Your task to perform on an android device: Open the Play Movies app and select the watchlist tab. Image 0: 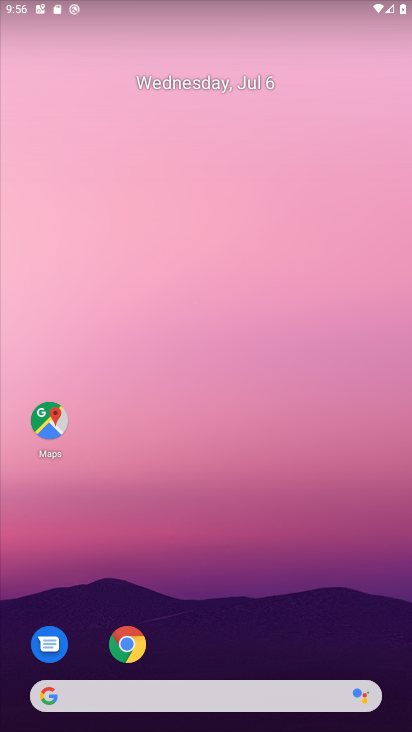
Step 0: drag from (241, 684) to (105, 134)
Your task to perform on an android device: Open the Play Movies app and select the watchlist tab. Image 1: 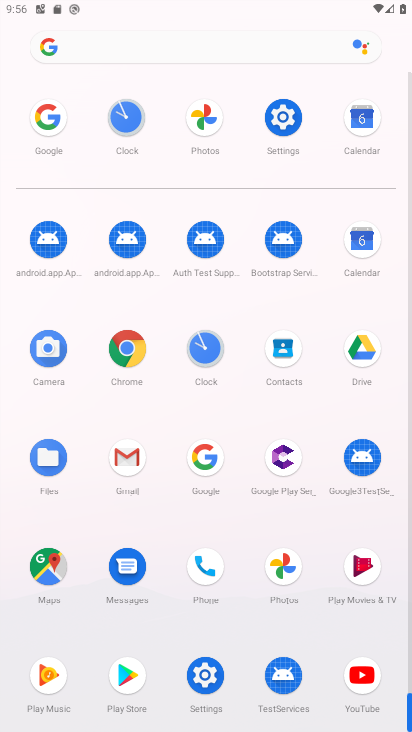
Step 1: click (349, 584)
Your task to perform on an android device: Open the Play Movies app and select the watchlist tab. Image 2: 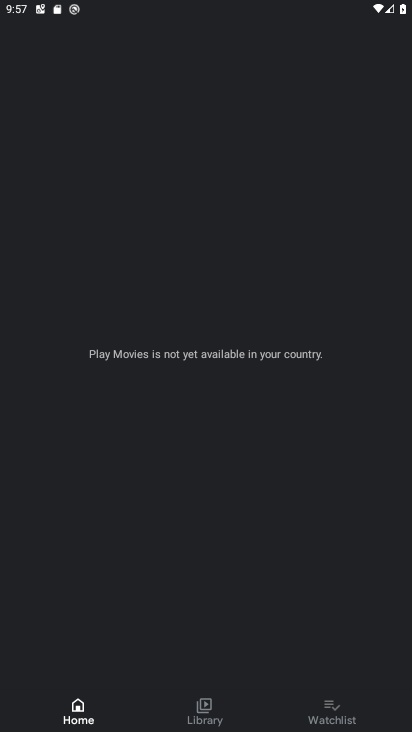
Step 2: click (343, 701)
Your task to perform on an android device: Open the Play Movies app and select the watchlist tab. Image 3: 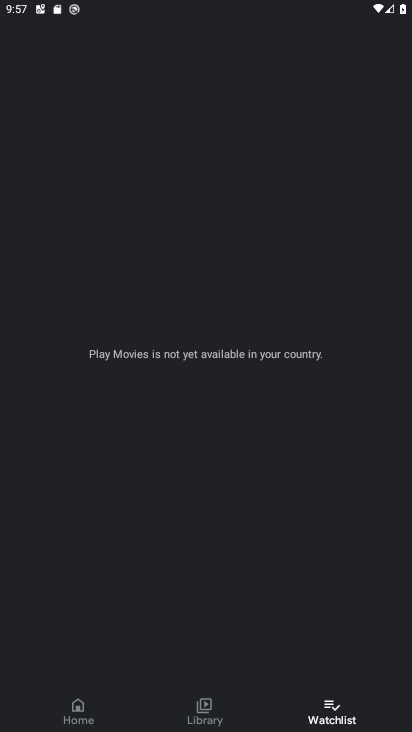
Step 3: task complete